Your task to perform on an android device: Go to settings Image 0: 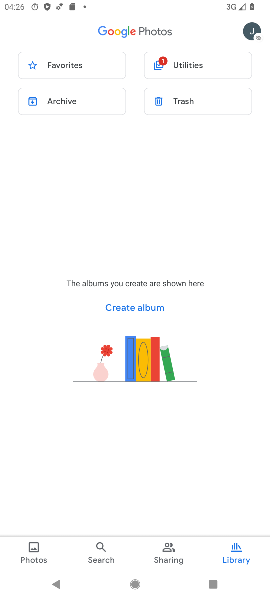
Step 0: press home button
Your task to perform on an android device: Go to settings Image 1: 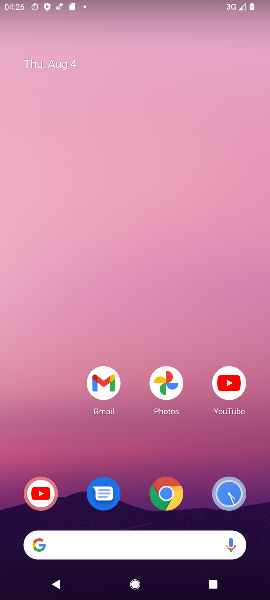
Step 1: drag from (27, 585) to (196, 97)
Your task to perform on an android device: Go to settings Image 2: 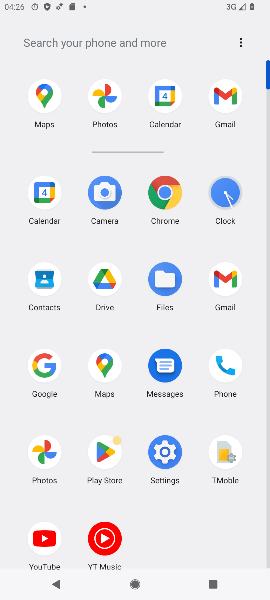
Step 2: click (145, 465)
Your task to perform on an android device: Go to settings Image 3: 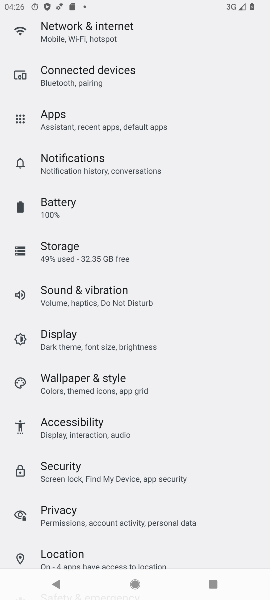
Step 3: task complete